Your task to perform on an android device: delete a single message in the gmail app Image 0: 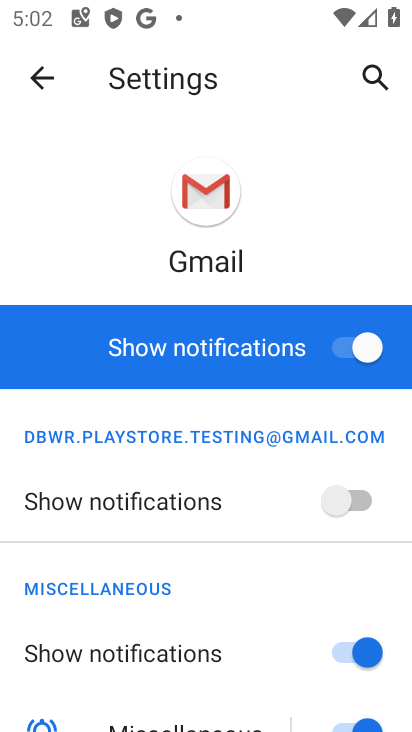
Step 0: drag from (173, 621) to (220, 191)
Your task to perform on an android device: delete a single message in the gmail app Image 1: 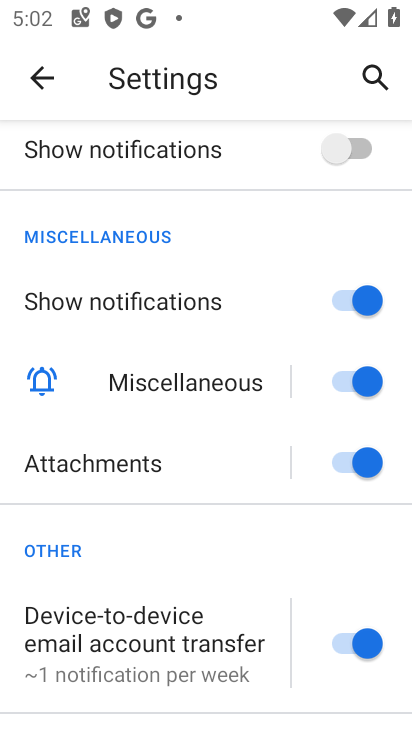
Step 1: click (40, 67)
Your task to perform on an android device: delete a single message in the gmail app Image 2: 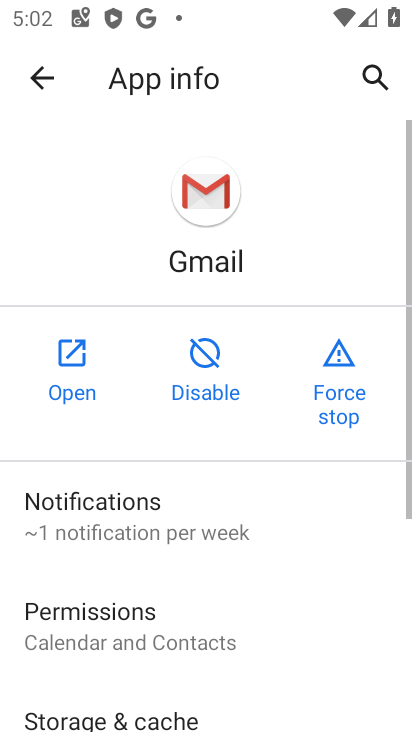
Step 2: click (49, 67)
Your task to perform on an android device: delete a single message in the gmail app Image 3: 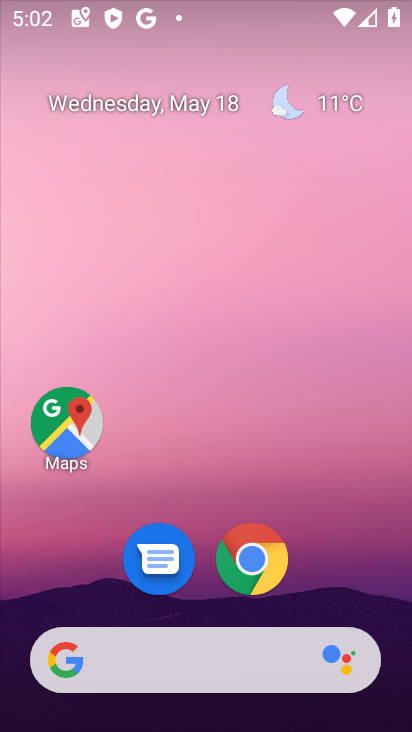
Step 3: drag from (233, 519) to (229, 72)
Your task to perform on an android device: delete a single message in the gmail app Image 4: 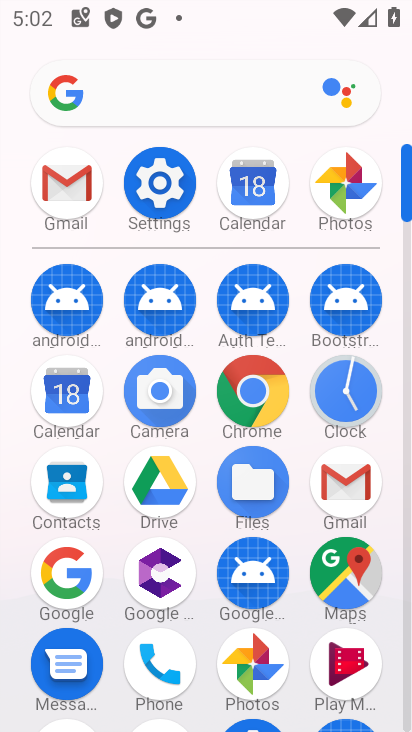
Step 4: click (58, 190)
Your task to perform on an android device: delete a single message in the gmail app Image 5: 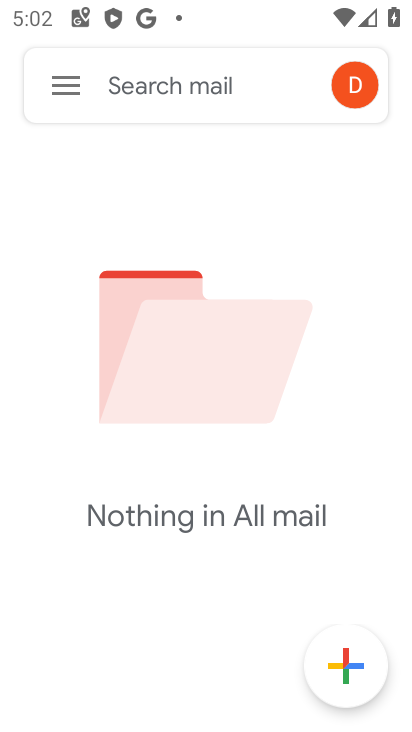
Step 5: click (64, 89)
Your task to perform on an android device: delete a single message in the gmail app Image 6: 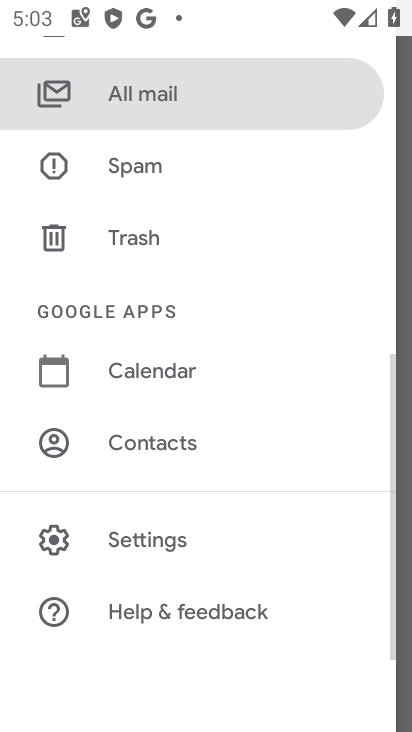
Step 6: task complete